Your task to perform on an android device: Go to calendar. Show me events next week Image 0: 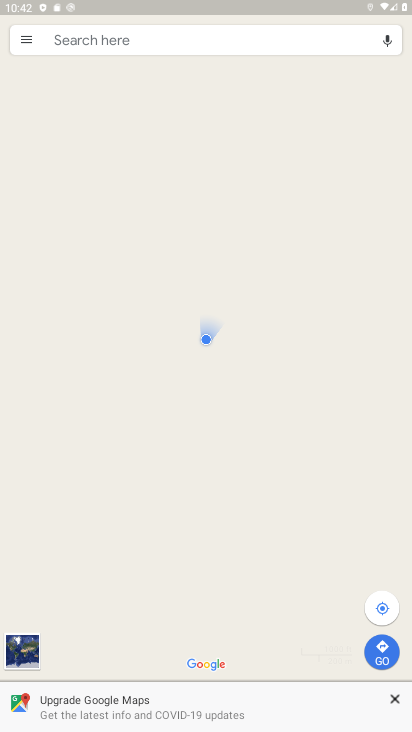
Step 0: drag from (65, 347) to (49, 56)
Your task to perform on an android device: Go to calendar. Show me events next week Image 1: 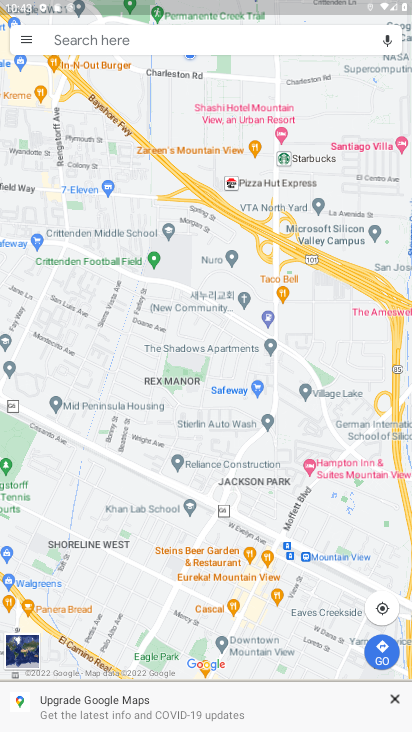
Step 1: press home button
Your task to perform on an android device: Go to calendar. Show me events next week Image 2: 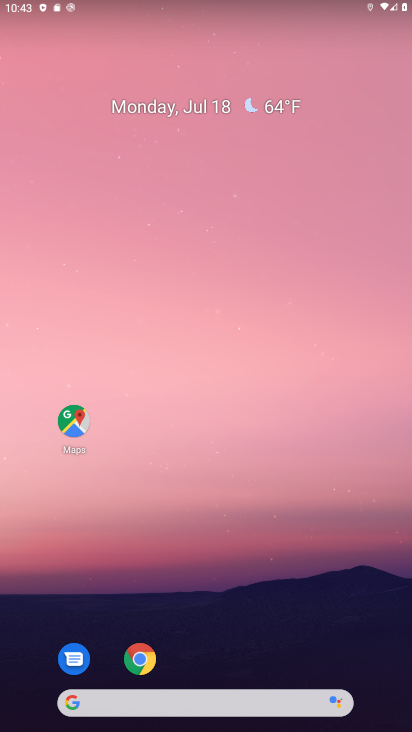
Step 2: drag from (234, 184) to (234, 150)
Your task to perform on an android device: Go to calendar. Show me events next week Image 3: 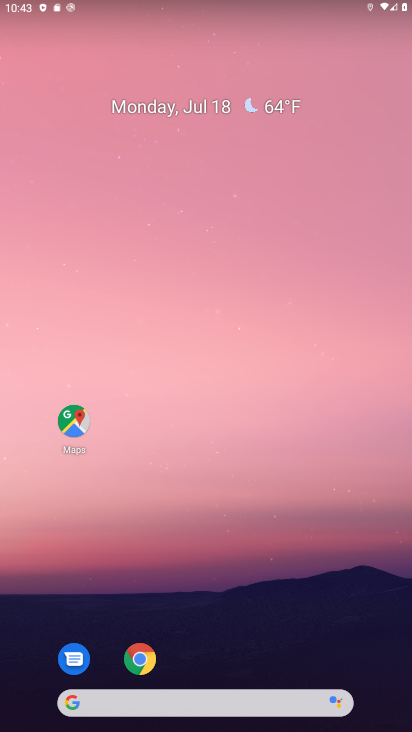
Step 3: drag from (181, 662) to (271, 132)
Your task to perform on an android device: Go to calendar. Show me events next week Image 4: 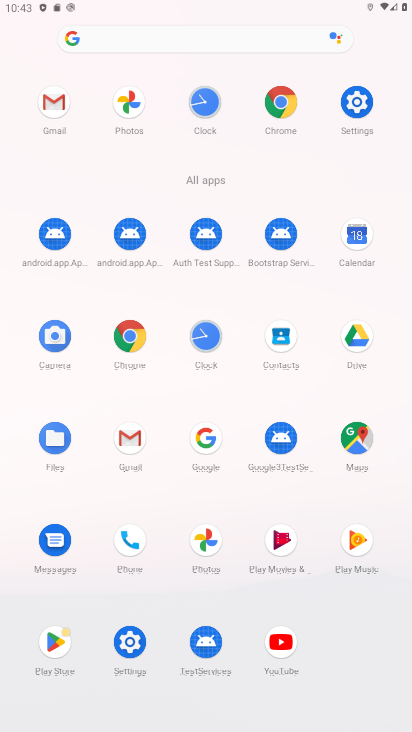
Step 4: click (366, 239)
Your task to perform on an android device: Go to calendar. Show me events next week Image 5: 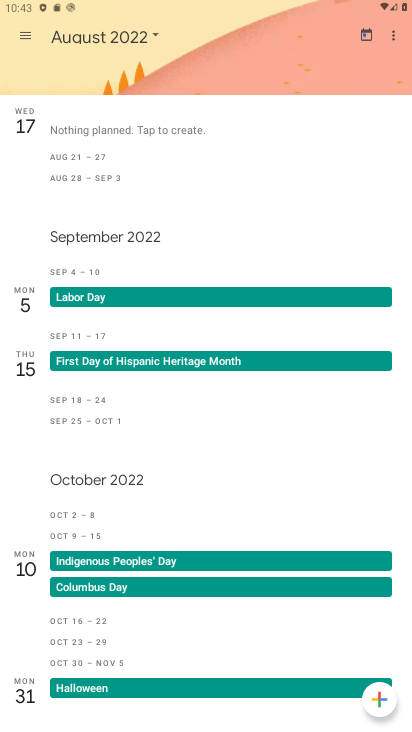
Step 5: click (151, 37)
Your task to perform on an android device: Go to calendar. Show me events next week Image 6: 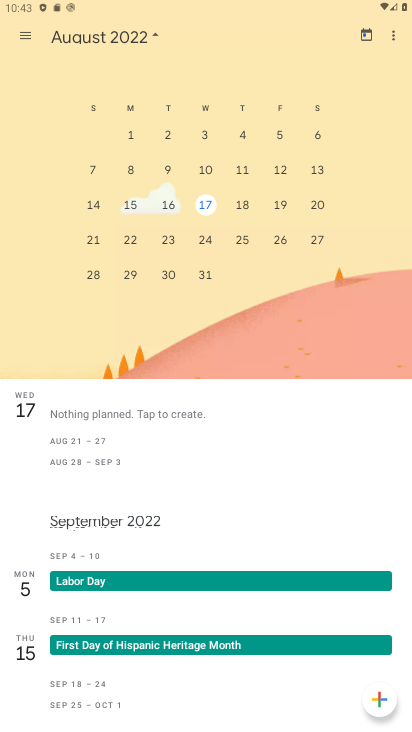
Step 6: drag from (308, 178) to (79, 205)
Your task to perform on an android device: Go to calendar. Show me events next week Image 7: 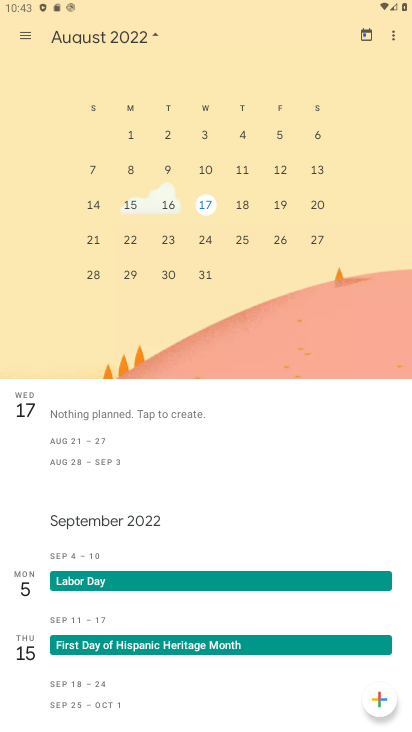
Step 7: click (28, 35)
Your task to perform on an android device: Go to calendar. Show me events next week Image 8: 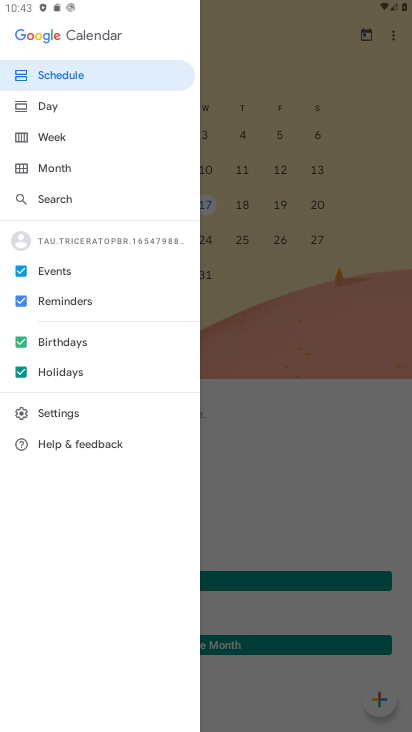
Step 8: click (65, 138)
Your task to perform on an android device: Go to calendar. Show me events next week Image 9: 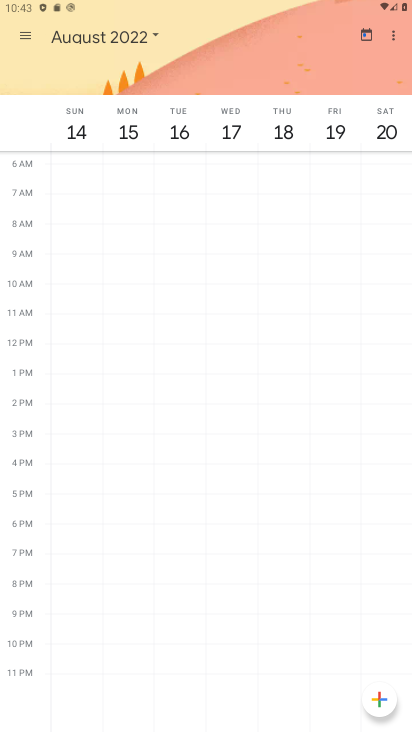
Step 9: drag from (72, 172) to (199, 149)
Your task to perform on an android device: Go to calendar. Show me events next week Image 10: 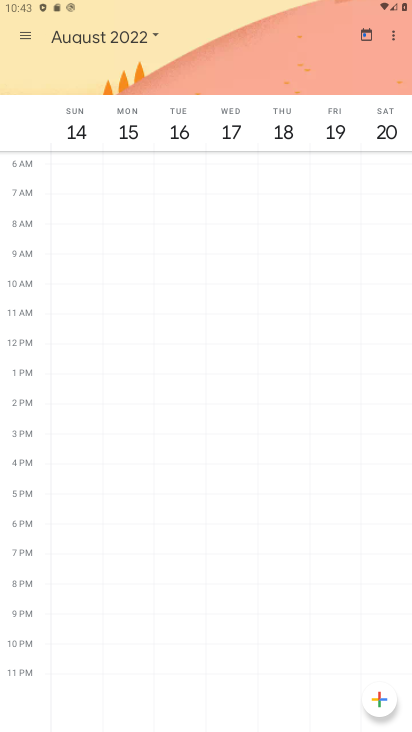
Step 10: click (153, 35)
Your task to perform on an android device: Go to calendar. Show me events next week Image 11: 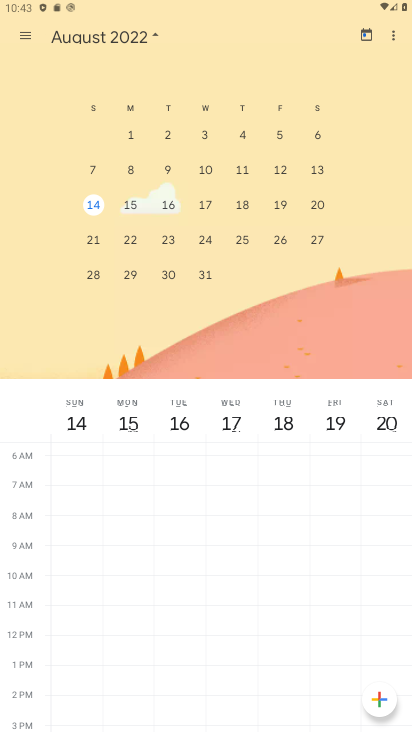
Step 11: drag from (26, 180) to (405, 163)
Your task to perform on an android device: Go to calendar. Show me events next week Image 12: 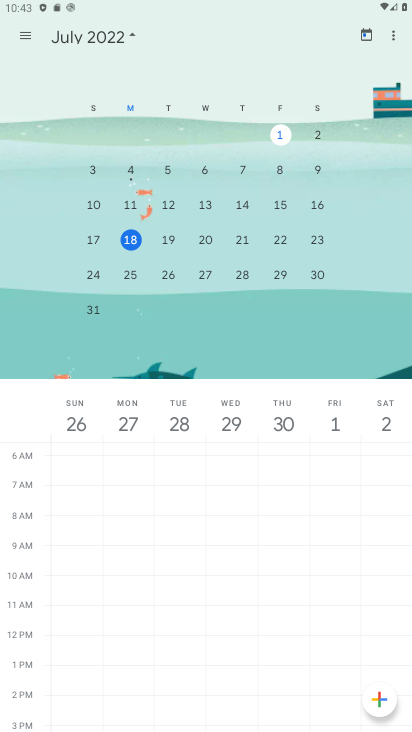
Step 12: click (170, 271)
Your task to perform on an android device: Go to calendar. Show me events next week Image 13: 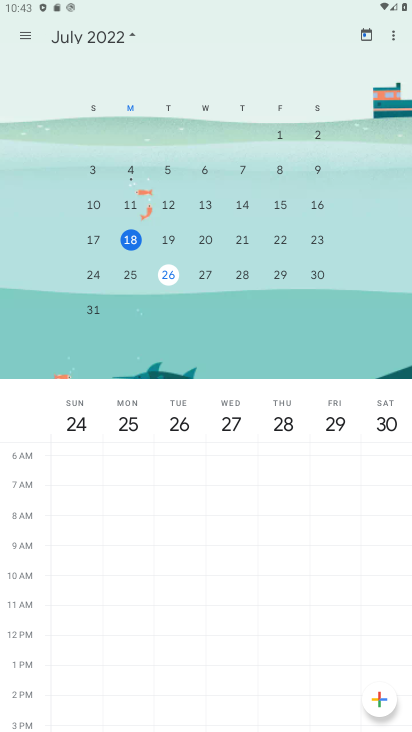
Step 13: task complete